Your task to perform on an android device: Open Google Chrome Image 0: 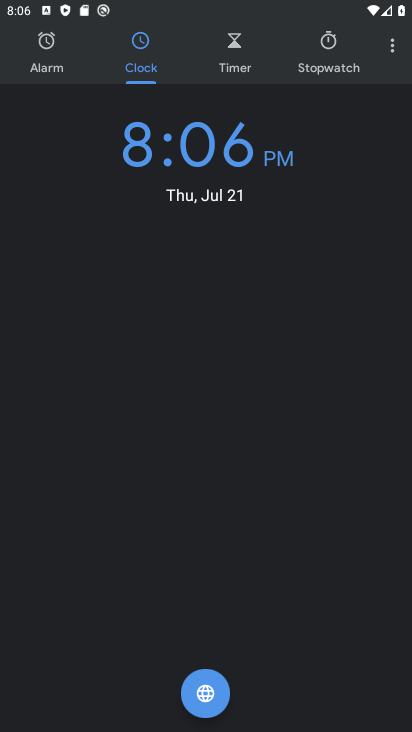
Step 0: press home button
Your task to perform on an android device: Open Google Chrome Image 1: 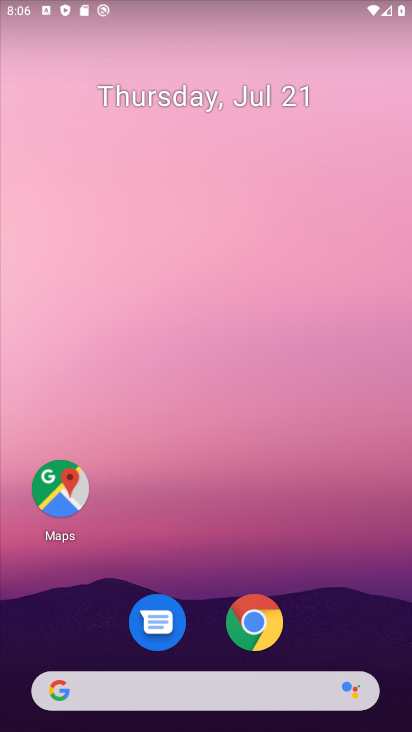
Step 1: click (260, 631)
Your task to perform on an android device: Open Google Chrome Image 2: 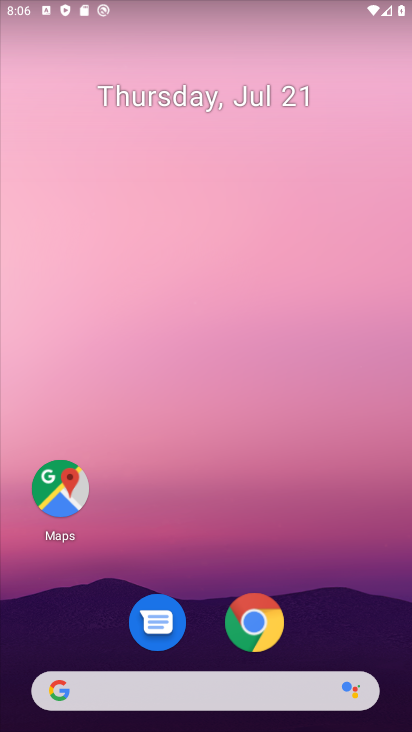
Step 2: click (260, 631)
Your task to perform on an android device: Open Google Chrome Image 3: 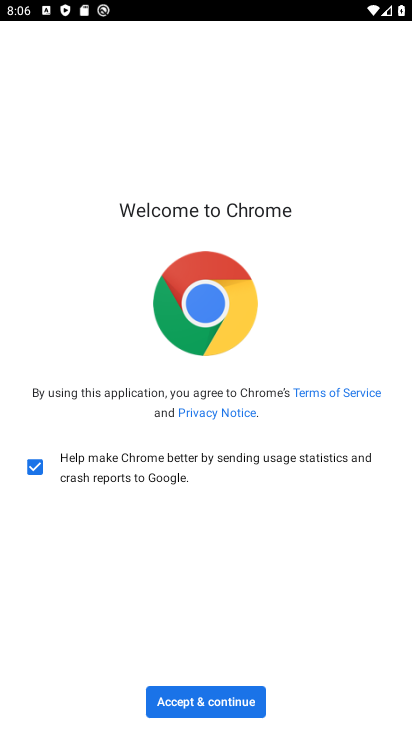
Step 3: click (195, 708)
Your task to perform on an android device: Open Google Chrome Image 4: 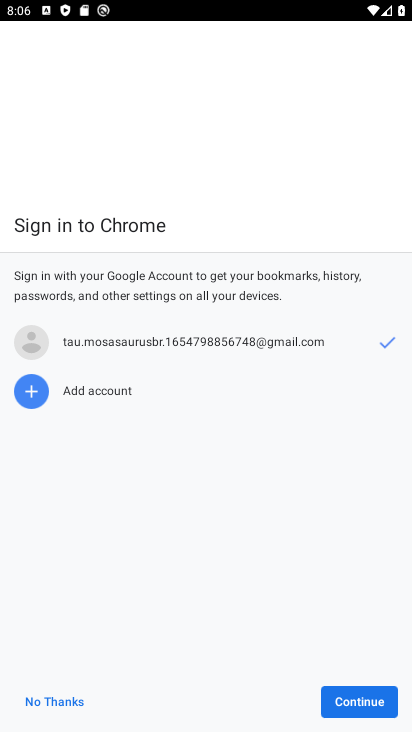
Step 4: click (355, 708)
Your task to perform on an android device: Open Google Chrome Image 5: 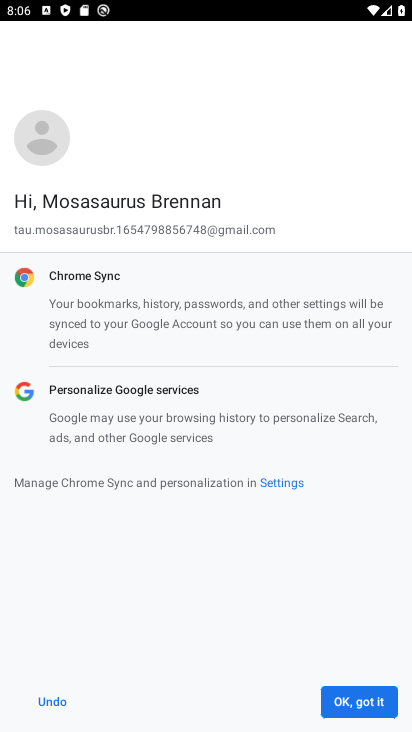
Step 5: click (355, 708)
Your task to perform on an android device: Open Google Chrome Image 6: 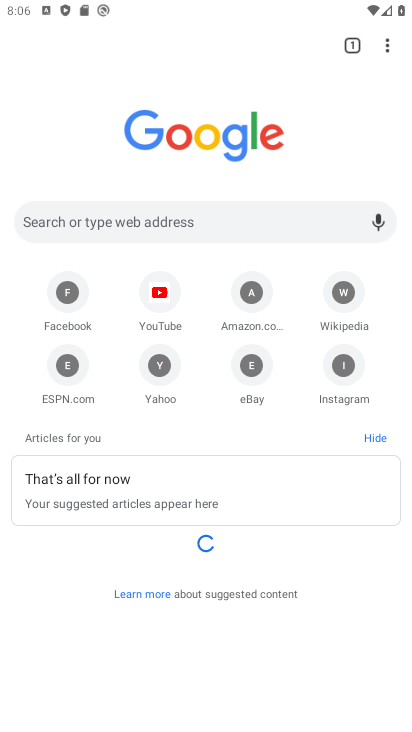
Step 6: task complete